Your task to perform on an android device: check google app version Image 0: 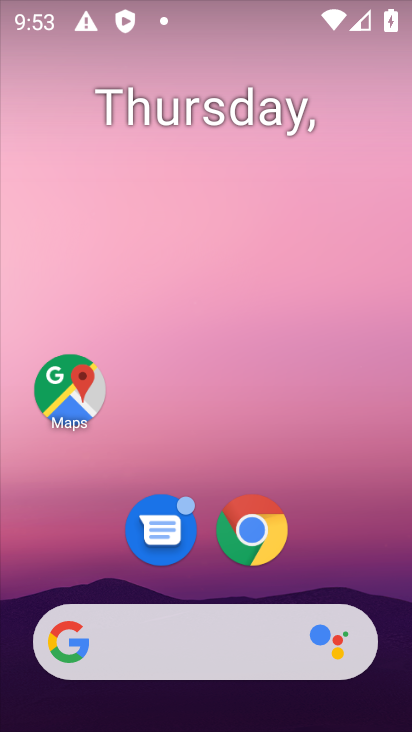
Step 0: press home button
Your task to perform on an android device: check google app version Image 1: 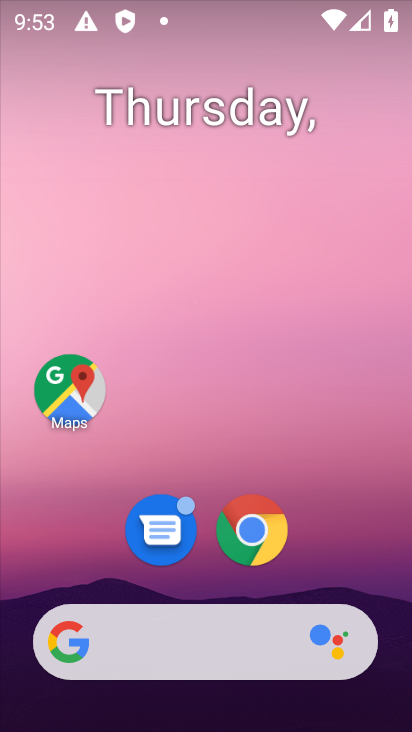
Step 1: drag from (381, 564) to (389, 685)
Your task to perform on an android device: check google app version Image 2: 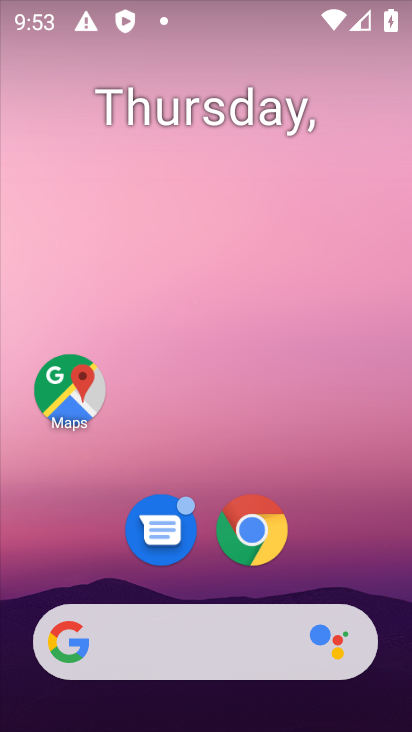
Step 2: drag from (346, 551) to (411, 643)
Your task to perform on an android device: check google app version Image 3: 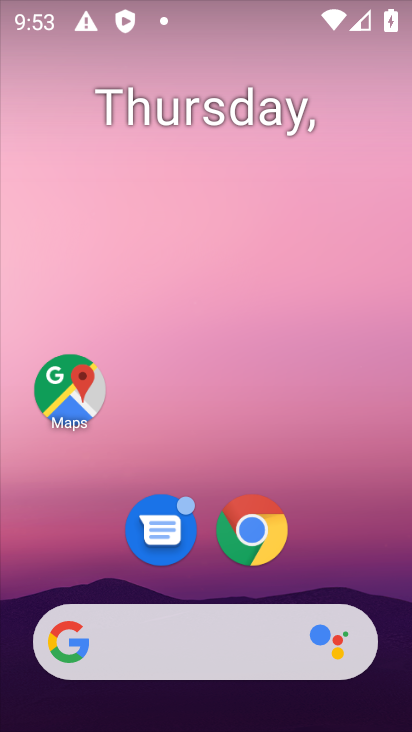
Step 3: drag from (347, 564) to (388, 701)
Your task to perform on an android device: check google app version Image 4: 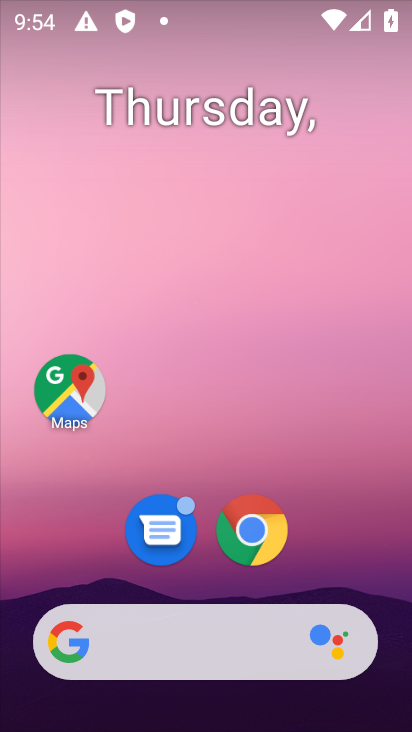
Step 4: drag from (77, 583) to (183, 128)
Your task to perform on an android device: check google app version Image 5: 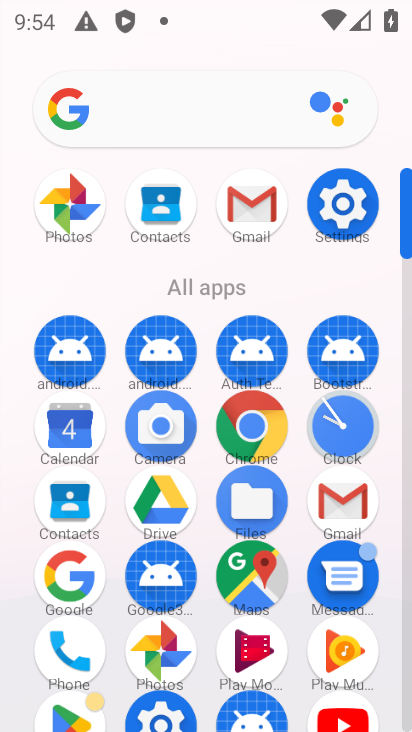
Step 5: click (66, 576)
Your task to perform on an android device: check google app version Image 6: 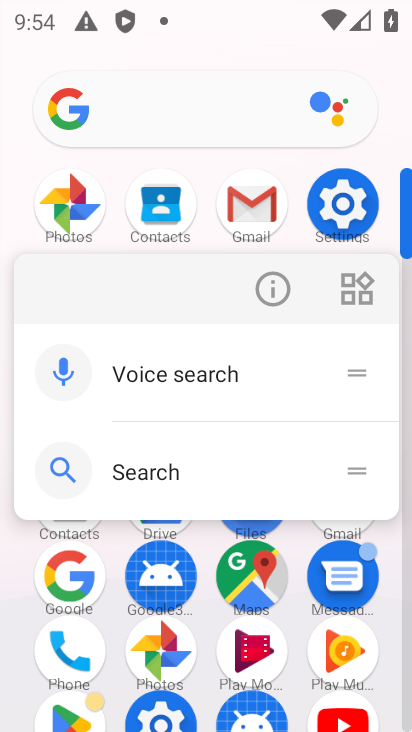
Step 6: click (276, 288)
Your task to perform on an android device: check google app version Image 7: 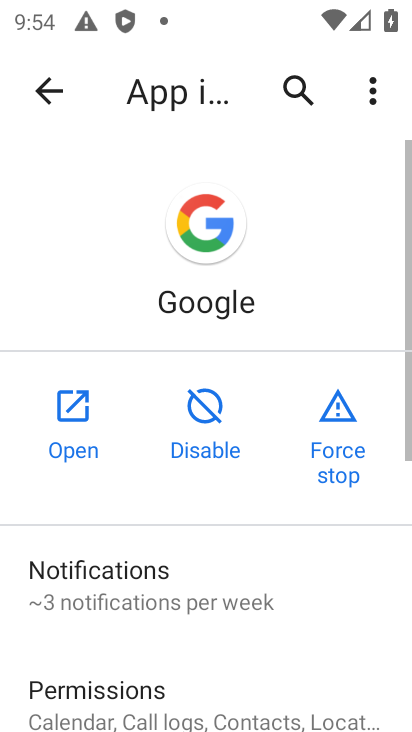
Step 7: drag from (294, 650) to (283, 10)
Your task to perform on an android device: check google app version Image 8: 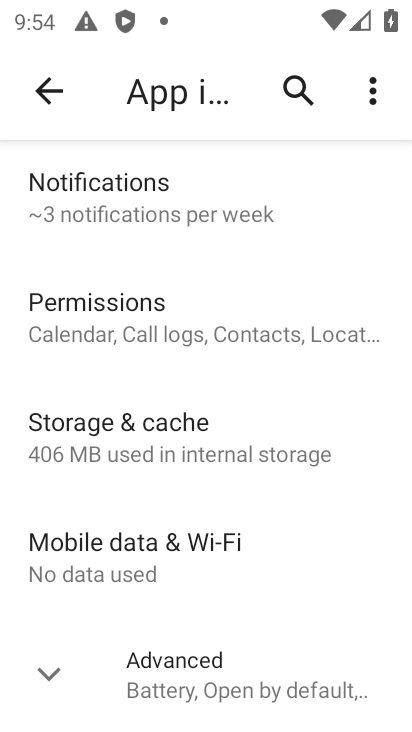
Step 8: drag from (179, 590) to (174, 39)
Your task to perform on an android device: check google app version Image 9: 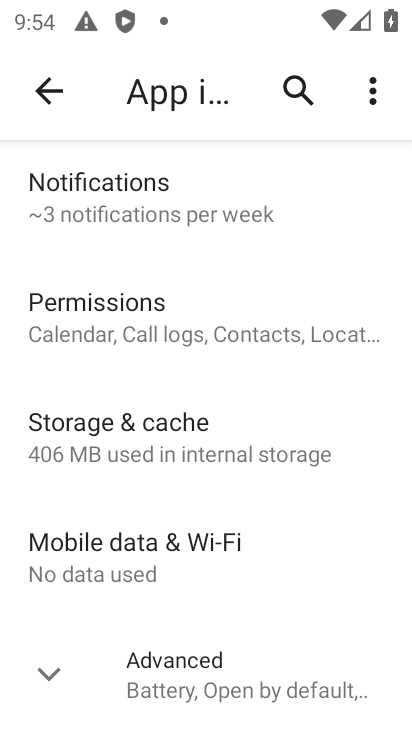
Step 9: click (46, 681)
Your task to perform on an android device: check google app version Image 10: 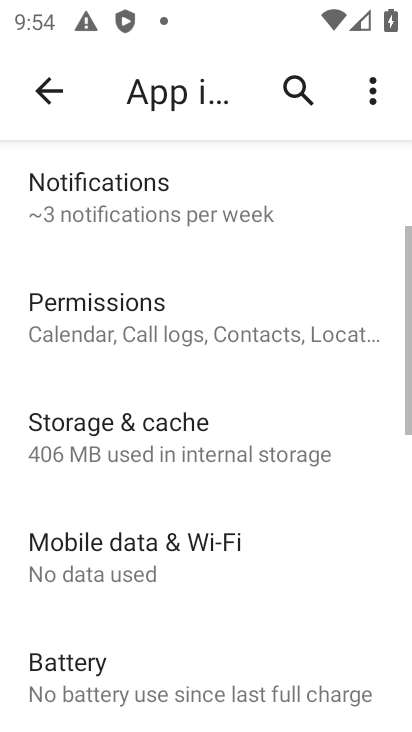
Step 10: task complete